Your task to perform on an android device: What's the weather like in Johannesburg? Image 0: 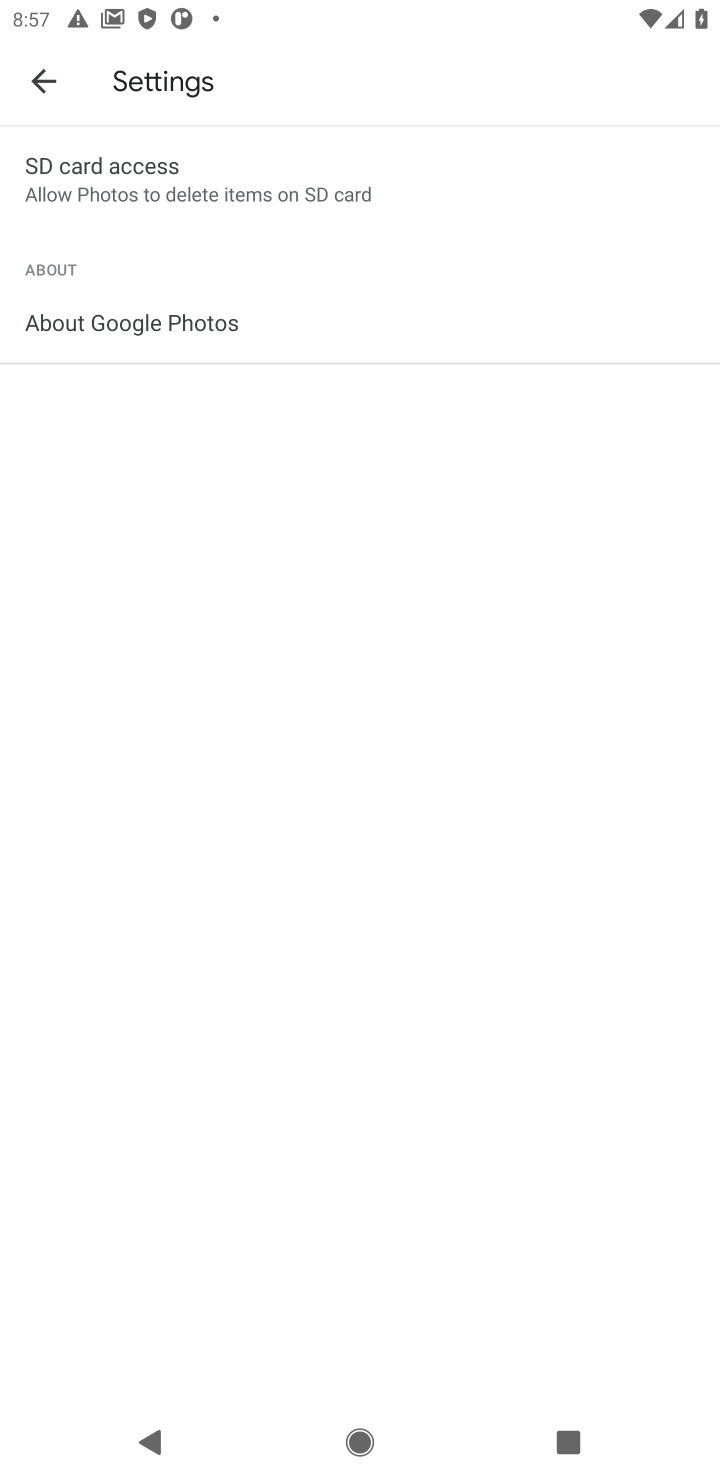
Step 0: click (310, 1312)
Your task to perform on an android device: What's the weather like in Johannesburg? Image 1: 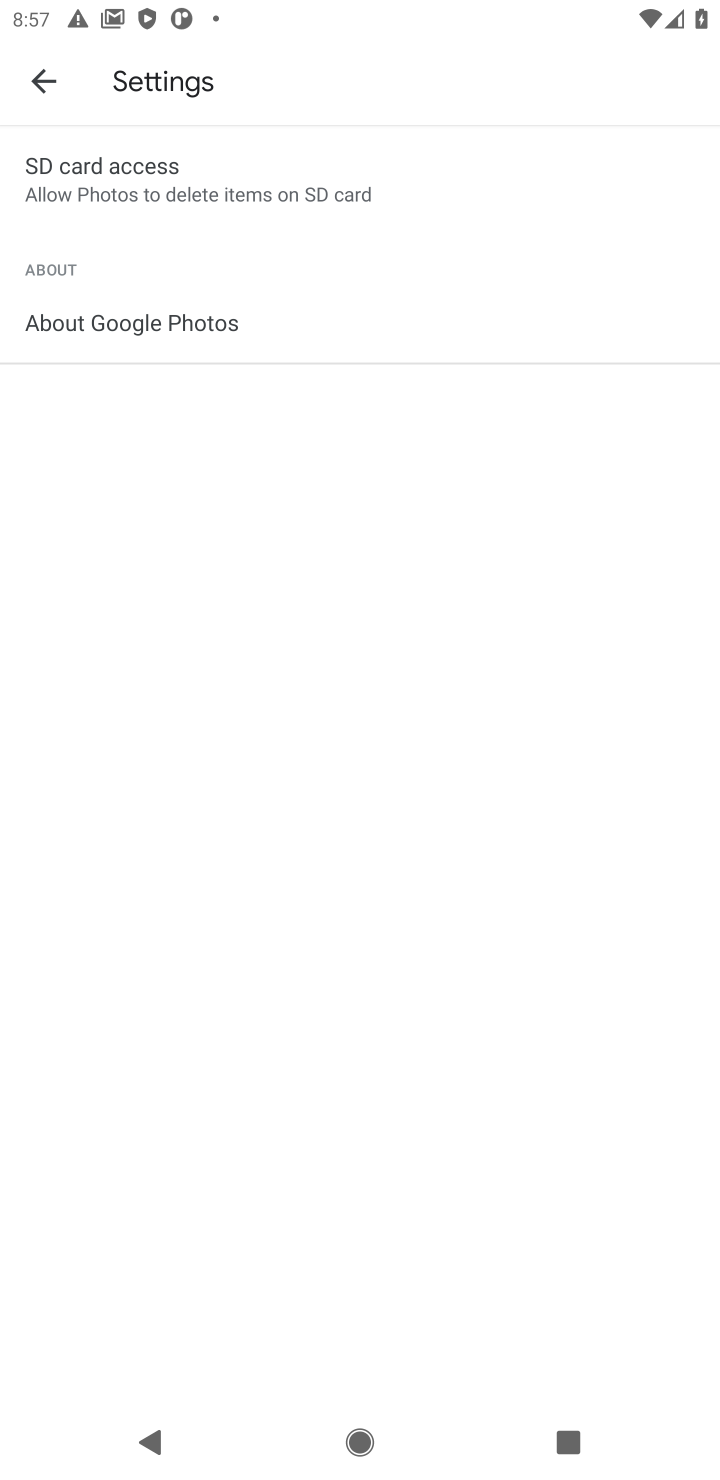
Step 1: press home button
Your task to perform on an android device: What's the weather like in Johannesburg? Image 2: 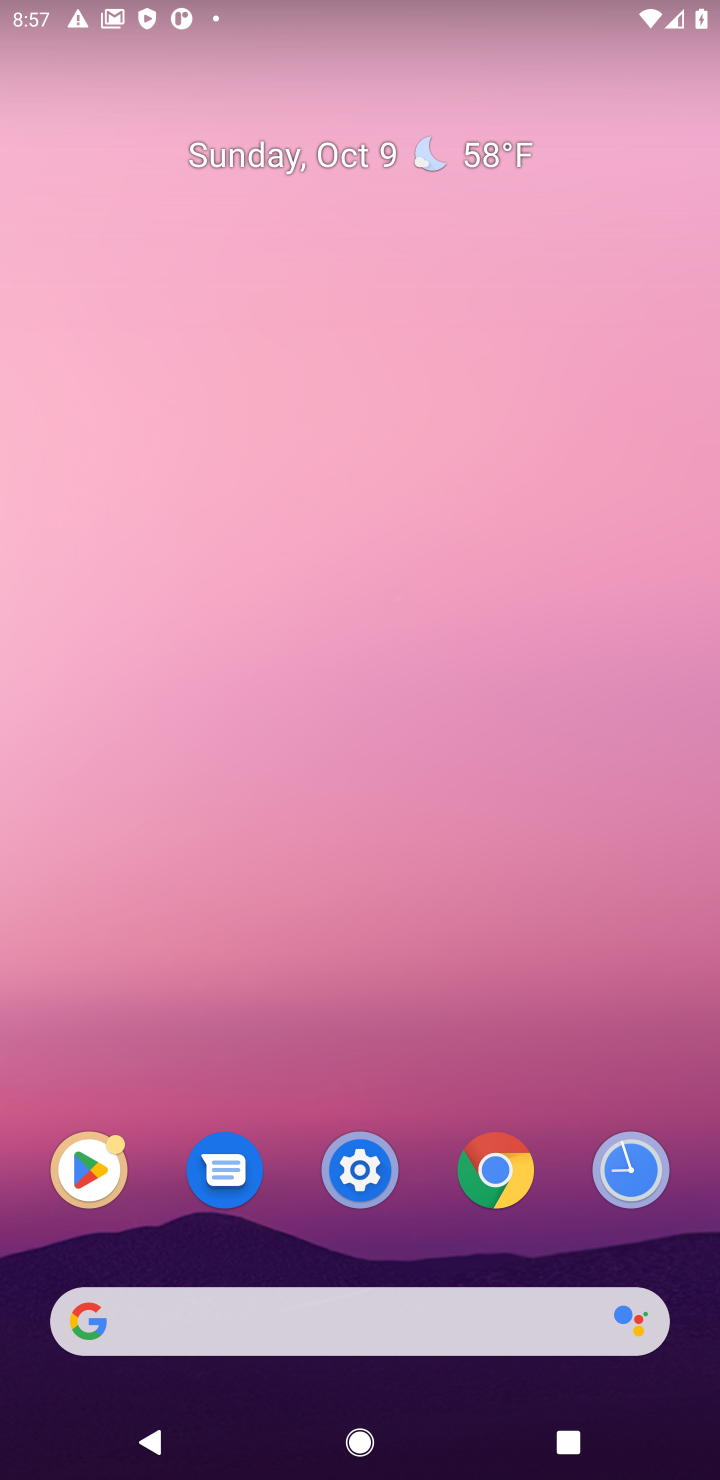
Step 2: click (275, 1310)
Your task to perform on an android device: What's the weather like in Johannesburg? Image 3: 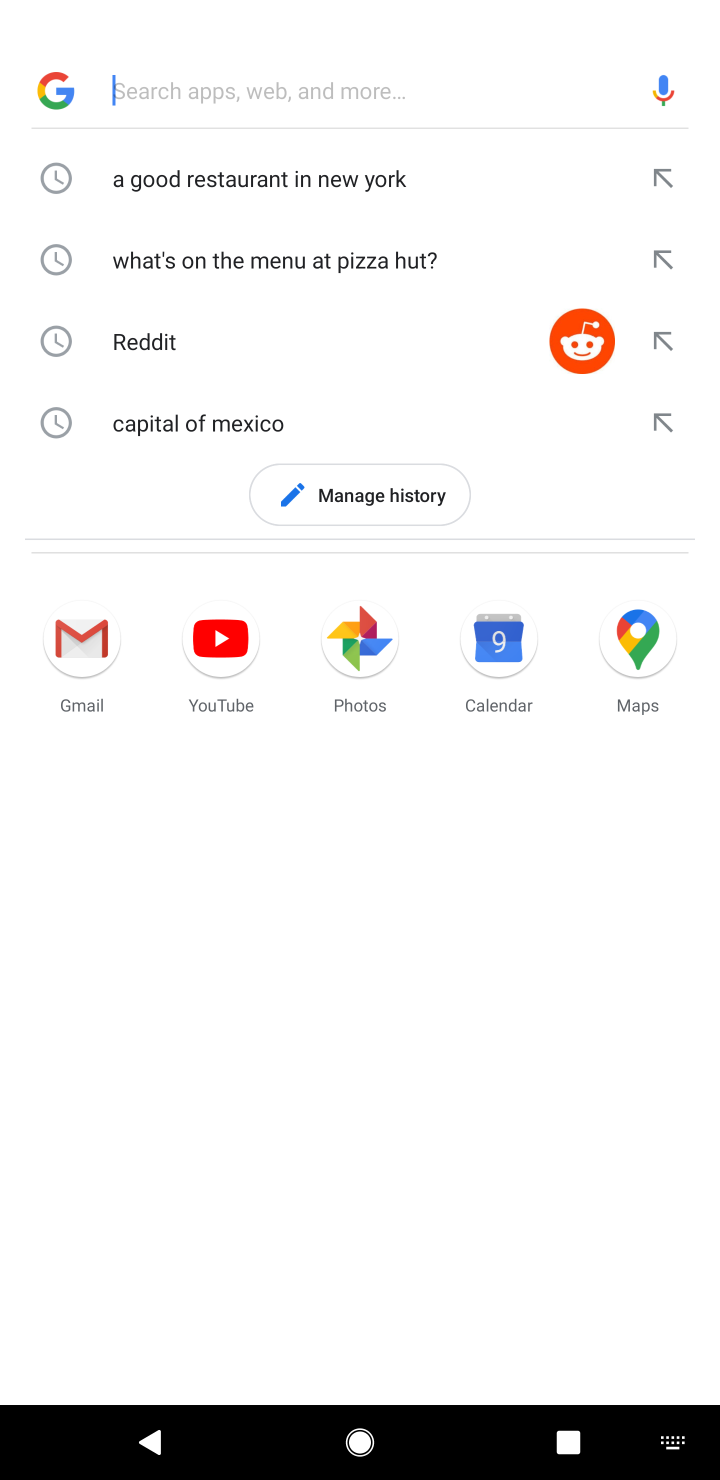
Step 3: type "What's the weather like in Johannesburg"
Your task to perform on an android device: What's the weather like in Johannesburg? Image 4: 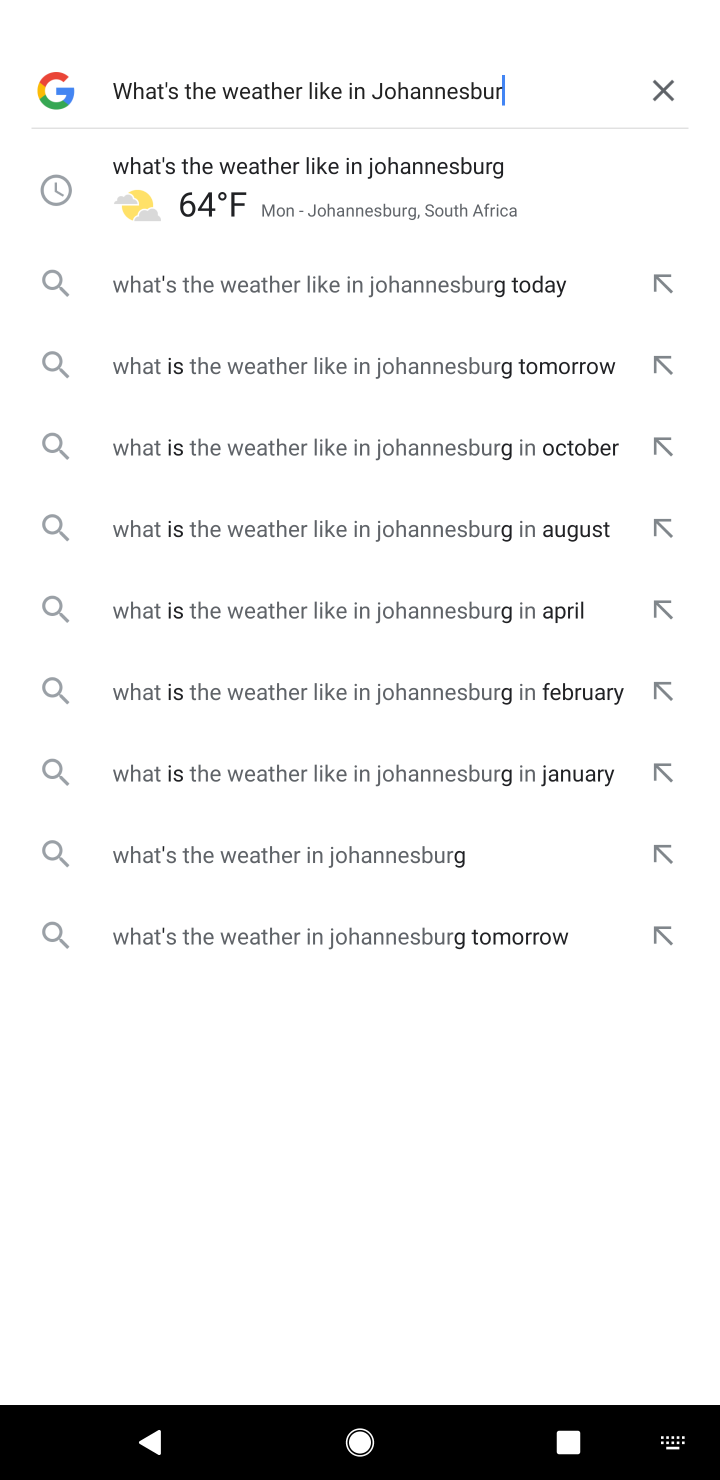
Step 4: click (179, 167)
Your task to perform on an android device: What's the weather like in Johannesburg? Image 5: 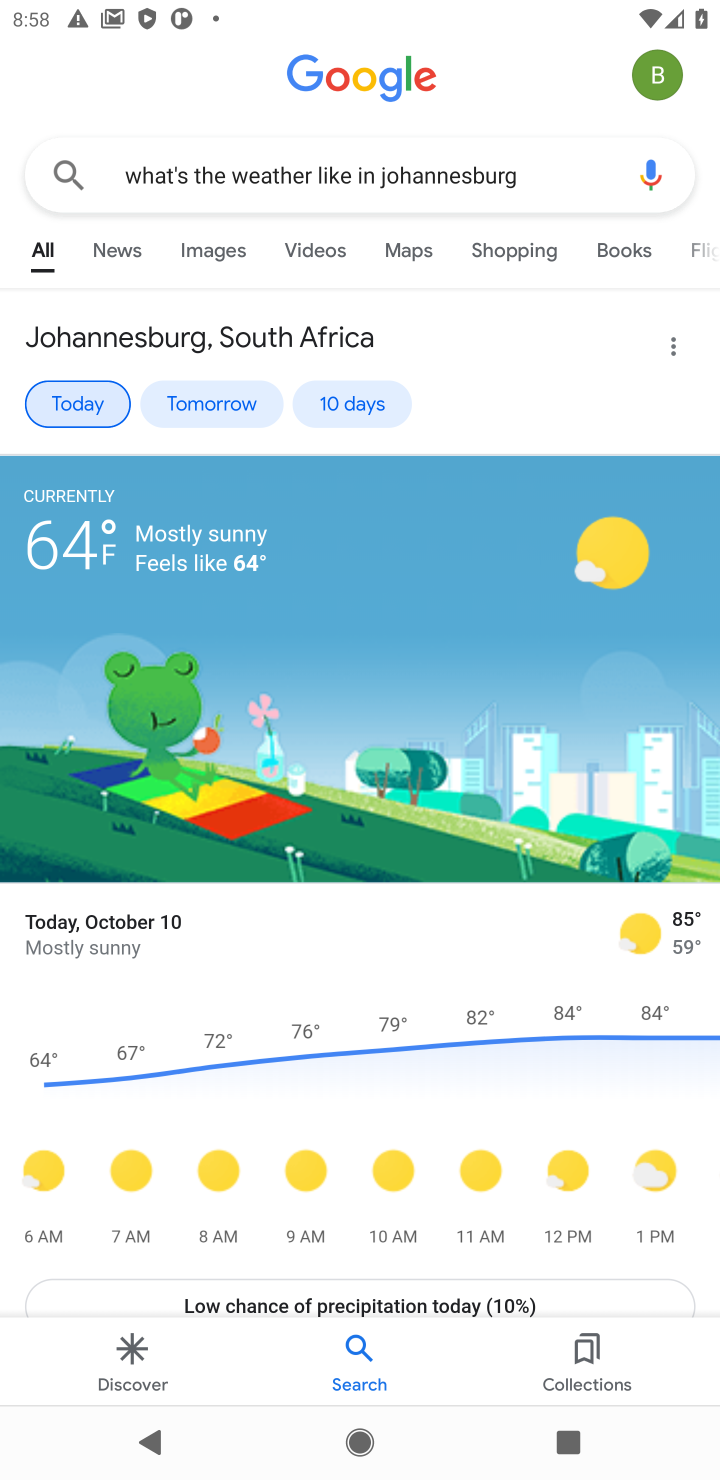
Step 5: task complete